Your task to perform on an android device: Open internet settings Image 0: 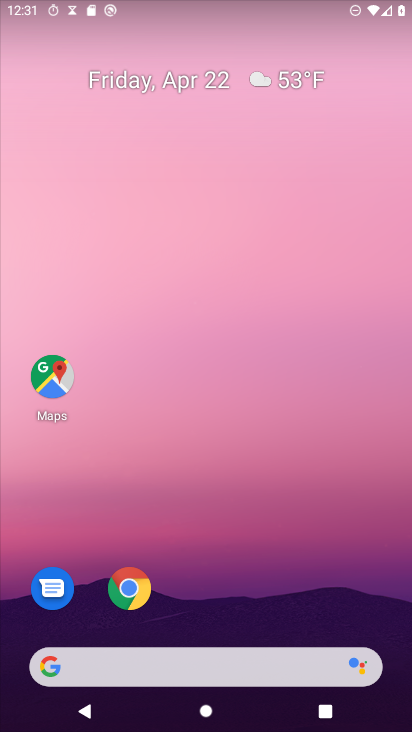
Step 0: drag from (263, 594) to (357, 58)
Your task to perform on an android device: Open internet settings Image 1: 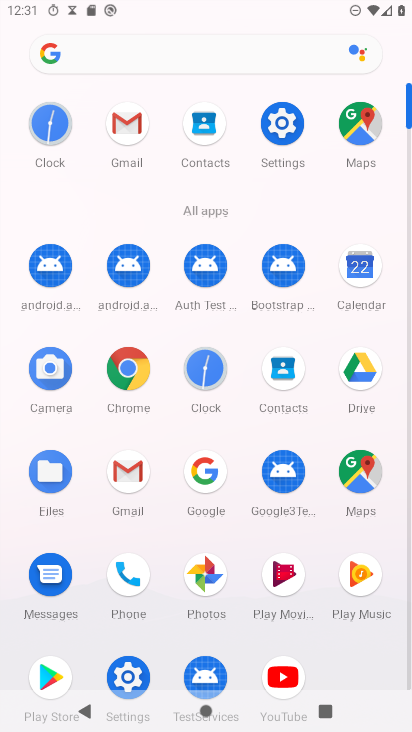
Step 1: click (291, 118)
Your task to perform on an android device: Open internet settings Image 2: 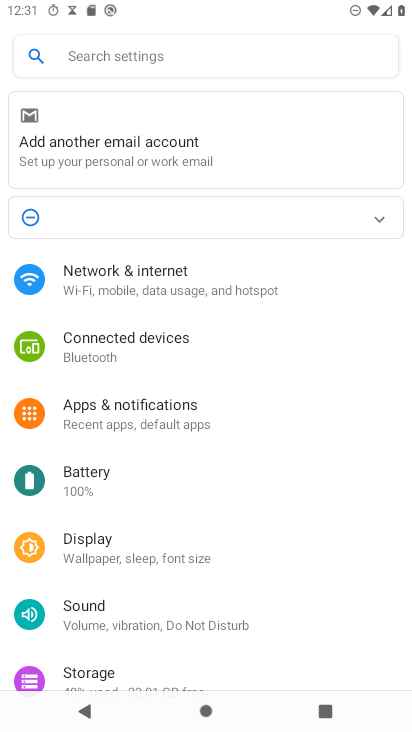
Step 2: click (181, 274)
Your task to perform on an android device: Open internet settings Image 3: 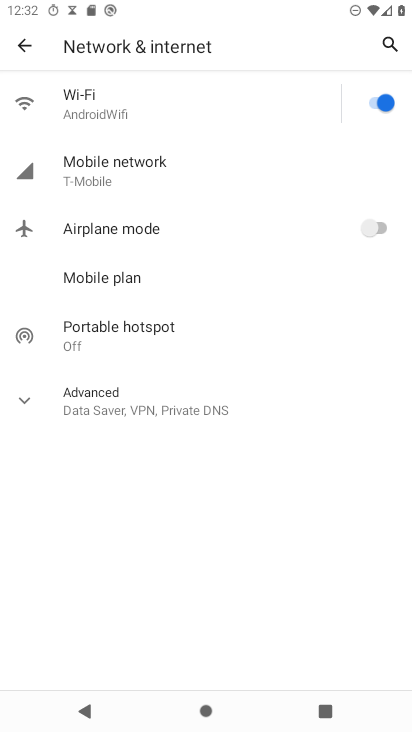
Step 3: click (122, 165)
Your task to perform on an android device: Open internet settings Image 4: 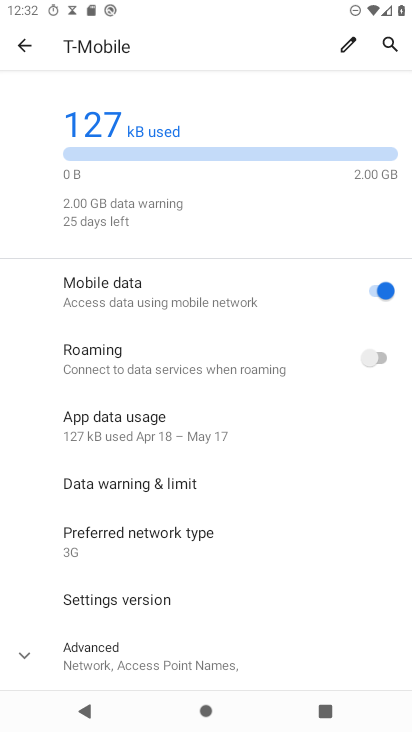
Step 4: task complete